Your task to perform on an android device: Is it going to rain tomorrow? Image 0: 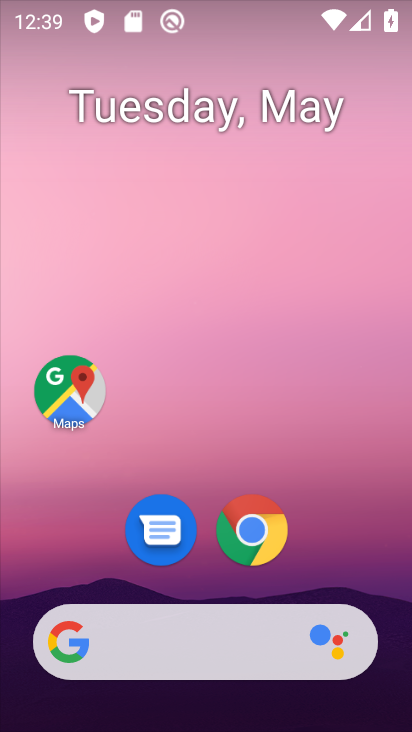
Step 0: drag from (0, 484) to (377, 363)
Your task to perform on an android device: Is it going to rain tomorrow? Image 1: 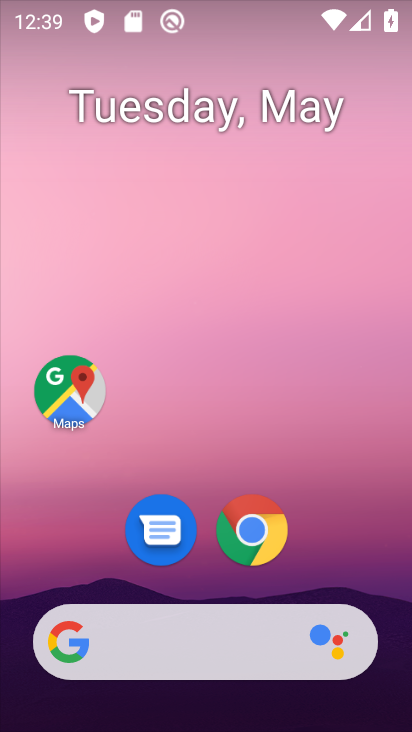
Step 1: drag from (4, 317) to (380, 263)
Your task to perform on an android device: Is it going to rain tomorrow? Image 2: 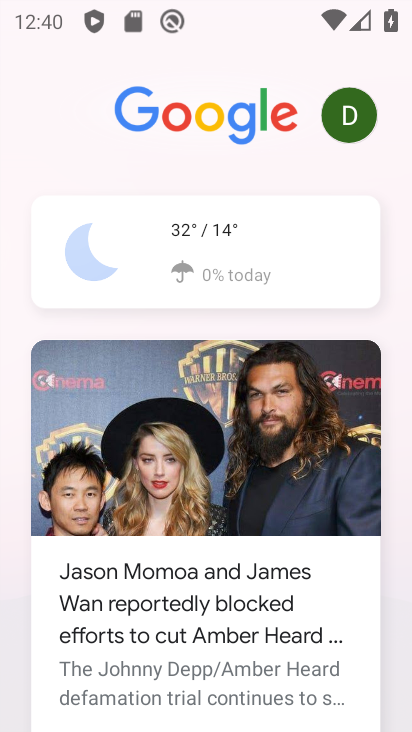
Step 2: click (254, 265)
Your task to perform on an android device: Is it going to rain tomorrow? Image 3: 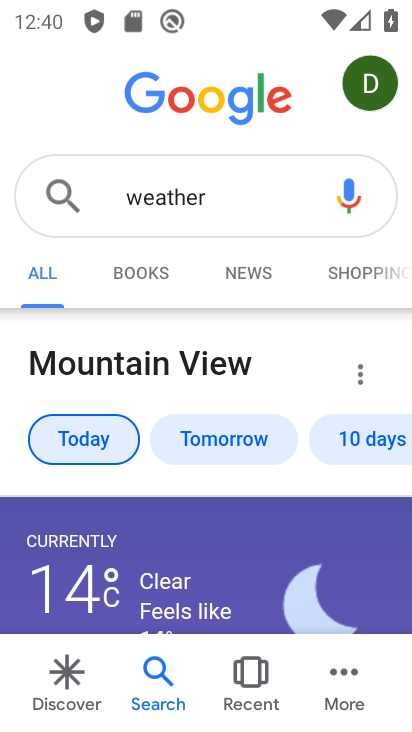
Step 3: click (226, 458)
Your task to perform on an android device: Is it going to rain tomorrow? Image 4: 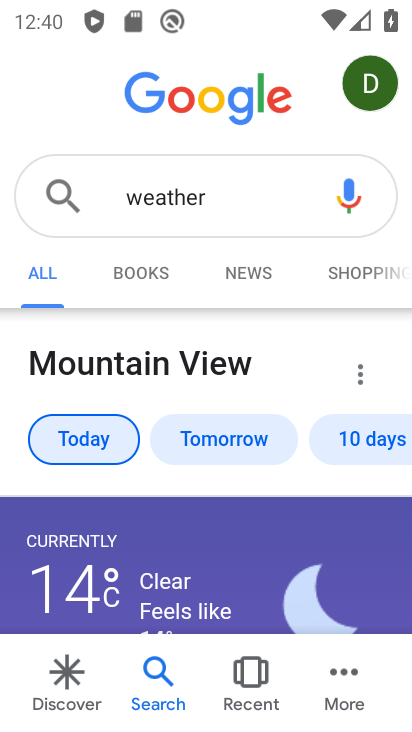
Step 4: click (251, 453)
Your task to perform on an android device: Is it going to rain tomorrow? Image 5: 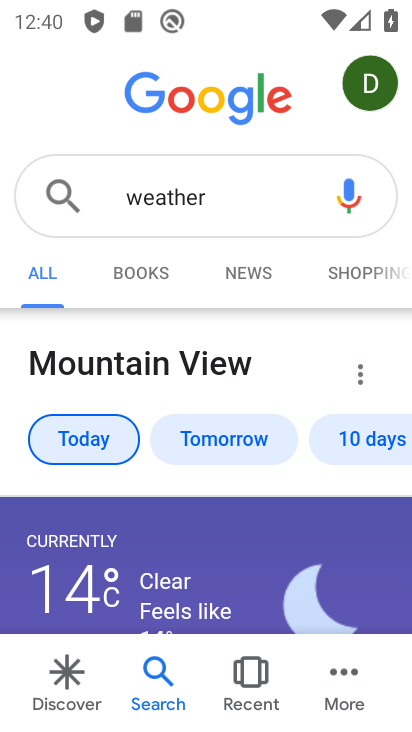
Step 5: click (232, 450)
Your task to perform on an android device: Is it going to rain tomorrow? Image 6: 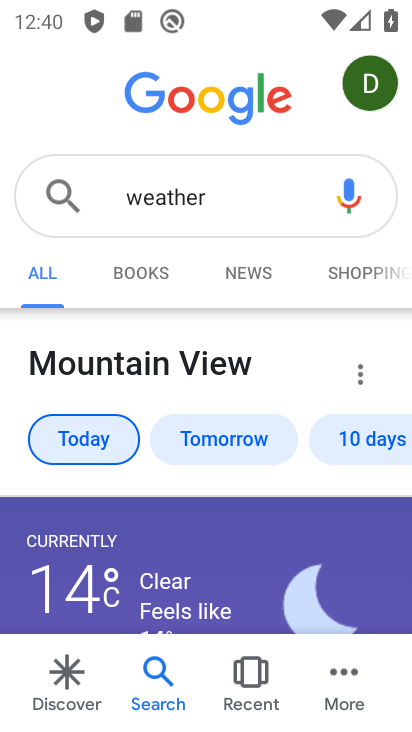
Step 6: drag from (236, 613) to (347, 242)
Your task to perform on an android device: Is it going to rain tomorrow? Image 7: 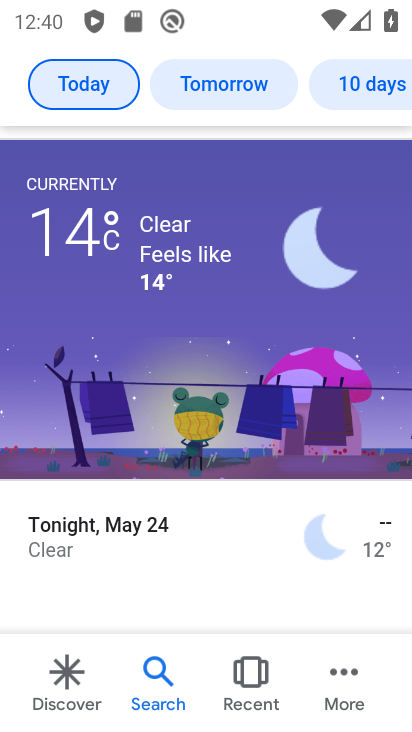
Step 7: drag from (208, 628) to (300, 217)
Your task to perform on an android device: Is it going to rain tomorrow? Image 8: 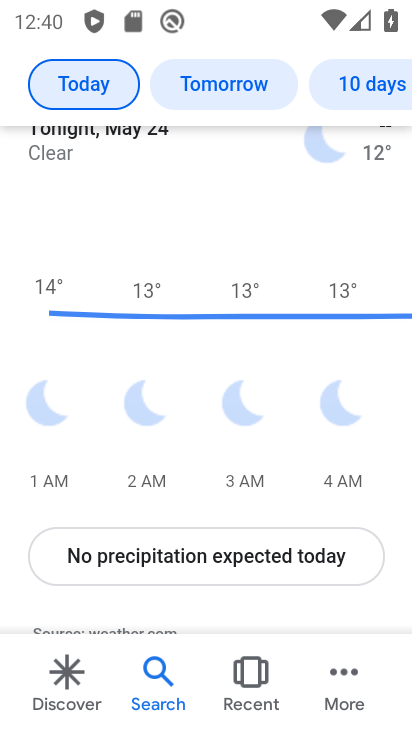
Step 8: drag from (211, 566) to (342, 179)
Your task to perform on an android device: Is it going to rain tomorrow? Image 9: 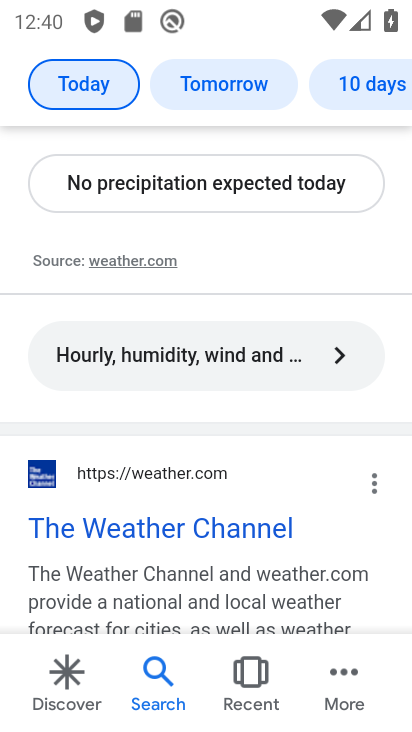
Step 9: click (229, 523)
Your task to perform on an android device: Is it going to rain tomorrow? Image 10: 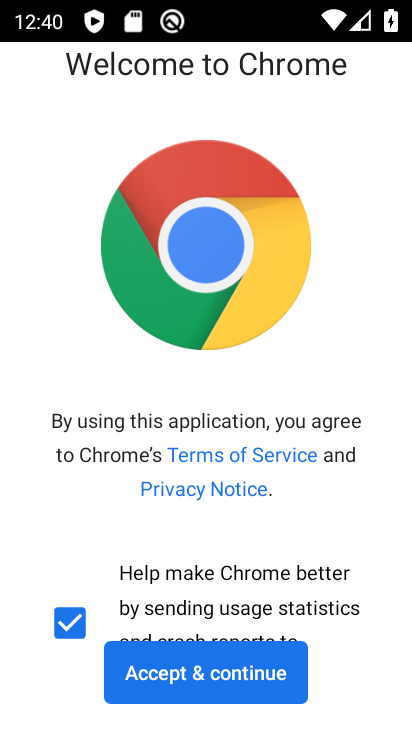
Step 10: click (226, 671)
Your task to perform on an android device: Is it going to rain tomorrow? Image 11: 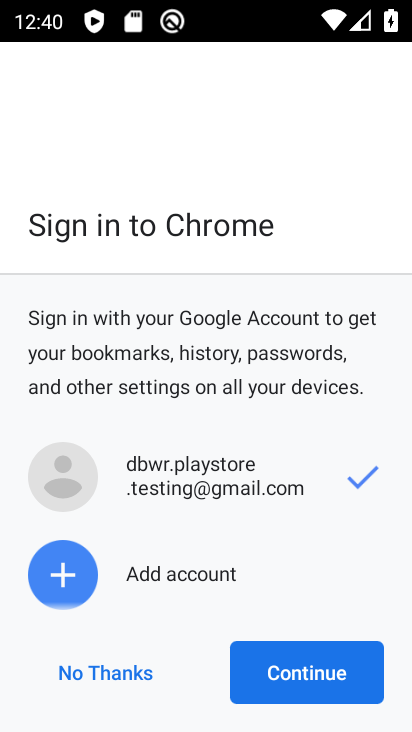
Step 11: click (349, 679)
Your task to perform on an android device: Is it going to rain tomorrow? Image 12: 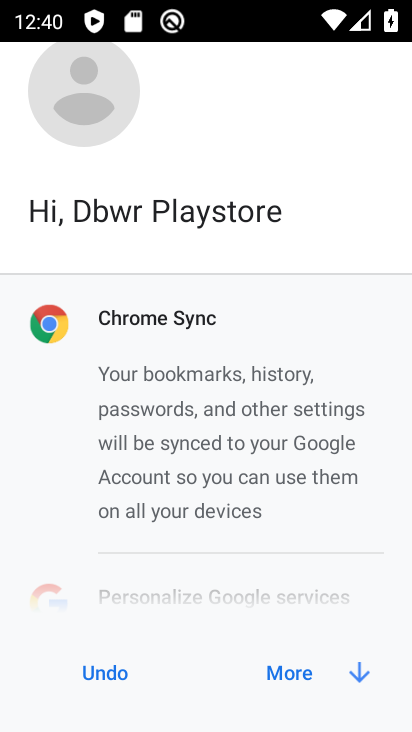
Step 12: click (326, 679)
Your task to perform on an android device: Is it going to rain tomorrow? Image 13: 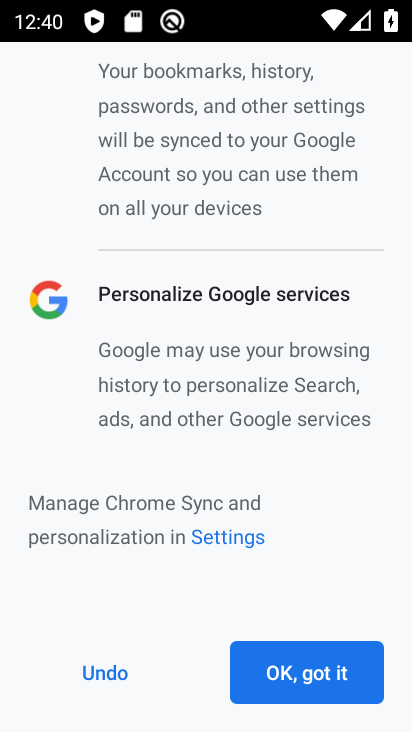
Step 13: click (326, 679)
Your task to perform on an android device: Is it going to rain tomorrow? Image 14: 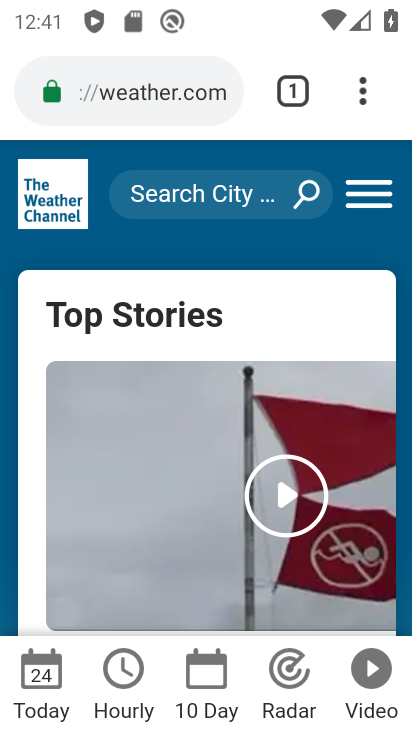
Step 14: click (224, 676)
Your task to perform on an android device: Is it going to rain tomorrow? Image 15: 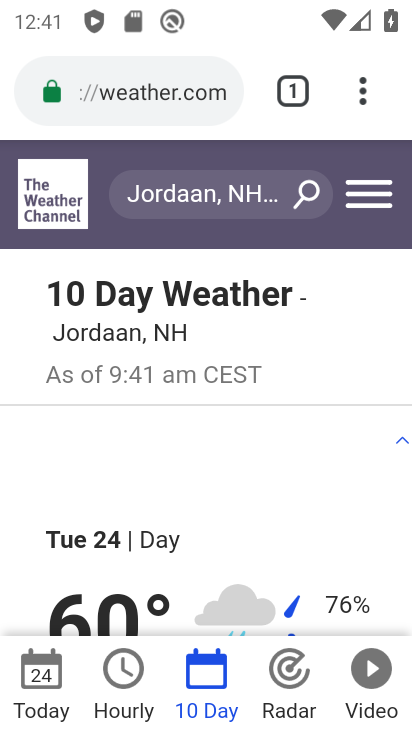
Step 15: drag from (188, 587) to (333, 260)
Your task to perform on an android device: Is it going to rain tomorrow? Image 16: 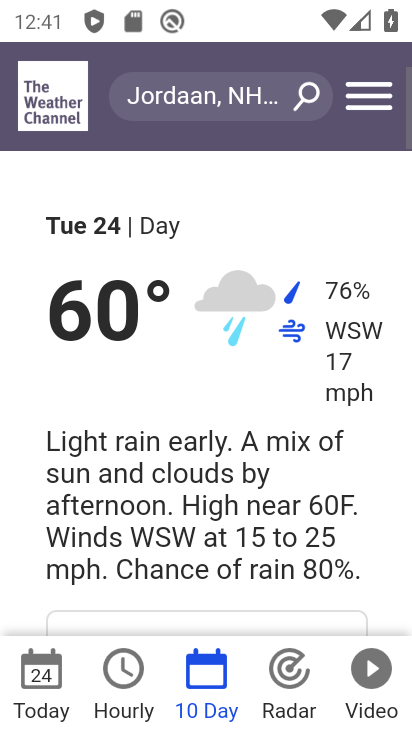
Step 16: drag from (218, 596) to (346, 273)
Your task to perform on an android device: Is it going to rain tomorrow? Image 17: 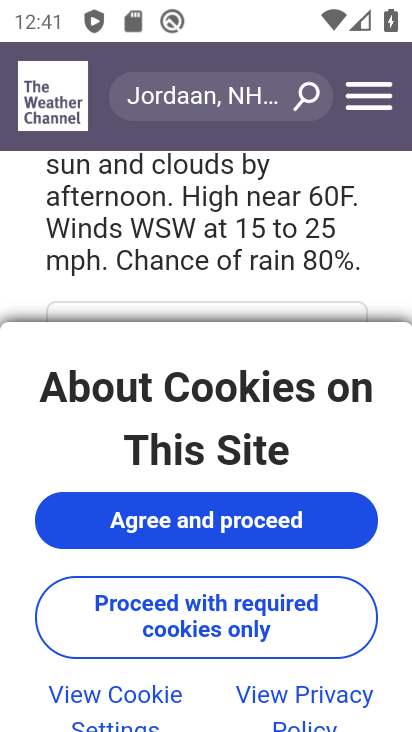
Step 17: click (229, 514)
Your task to perform on an android device: Is it going to rain tomorrow? Image 18: 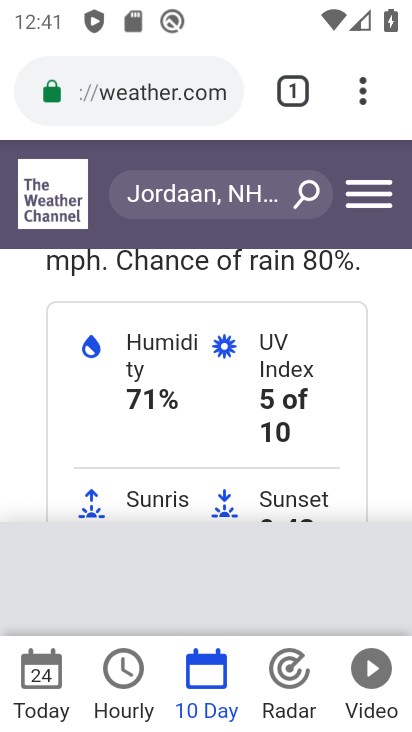
Step 18: task complete